Your task to perform on an android device: open device folders in google photos Image 0: 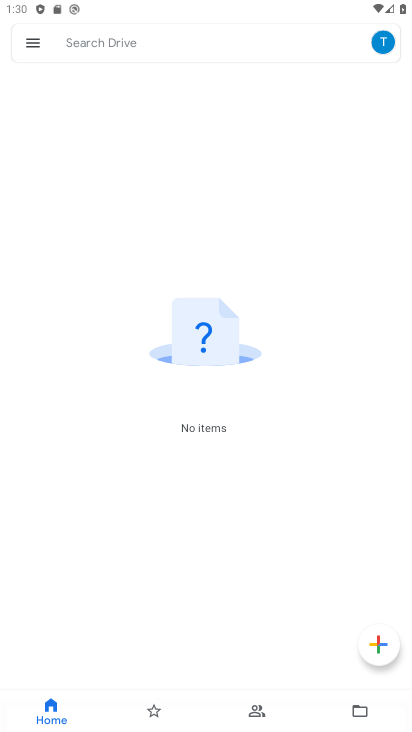
Step 0: press home button
Your task to perform on an android device: open device folders in google photos Image 1: 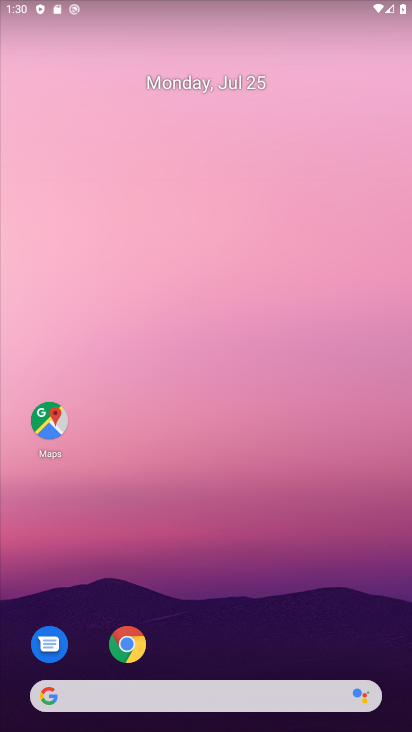
Step 1: drag from (218, 634) to (127, 134)
Your task to perform on an android device: open device folders in google photos Image 2: 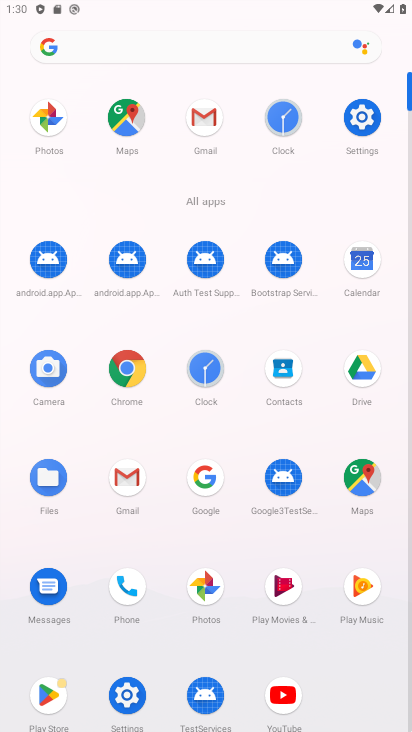
Step 2: click (52, 143)
Your task to perform on an android device: open device folders in google photos Image 3: 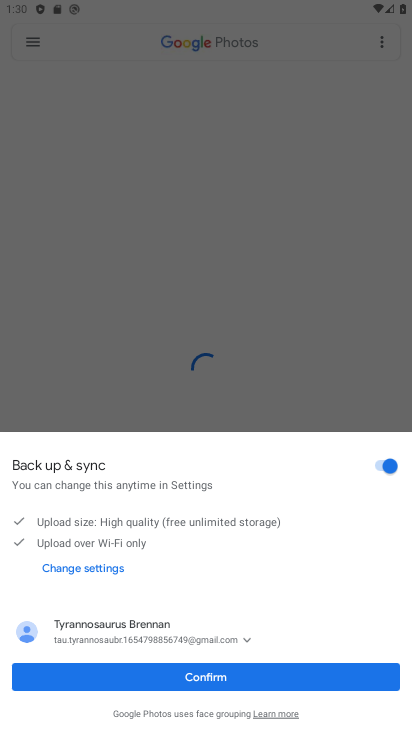
Step 3: click (184, 667)
Your task to perform on an android device: open device folders in google photos Image 4: 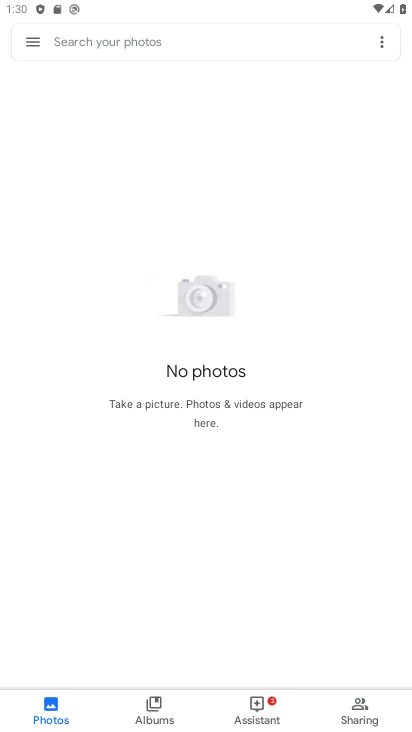
Step 4: click (35, 43)
Your task to perform on an android device: open device folders in google photos Image 5: 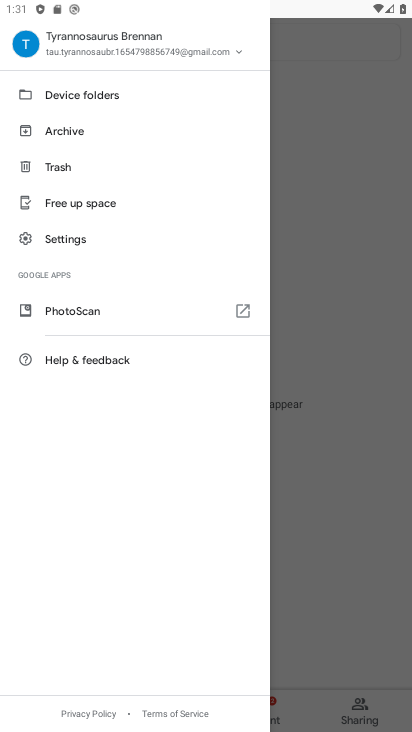
Step 5: click (93, 91)
Your task to perform on an android device: open device folders in google photos Image 6: 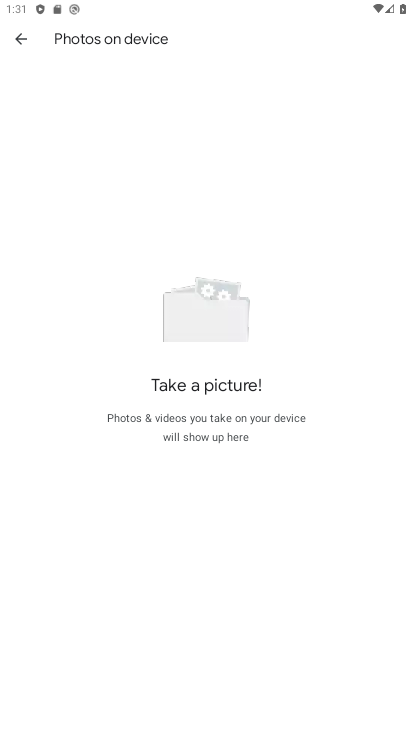
Step 6: task complete